Your task to perform on an android device: Do I have any events tomorrow? Image 0: 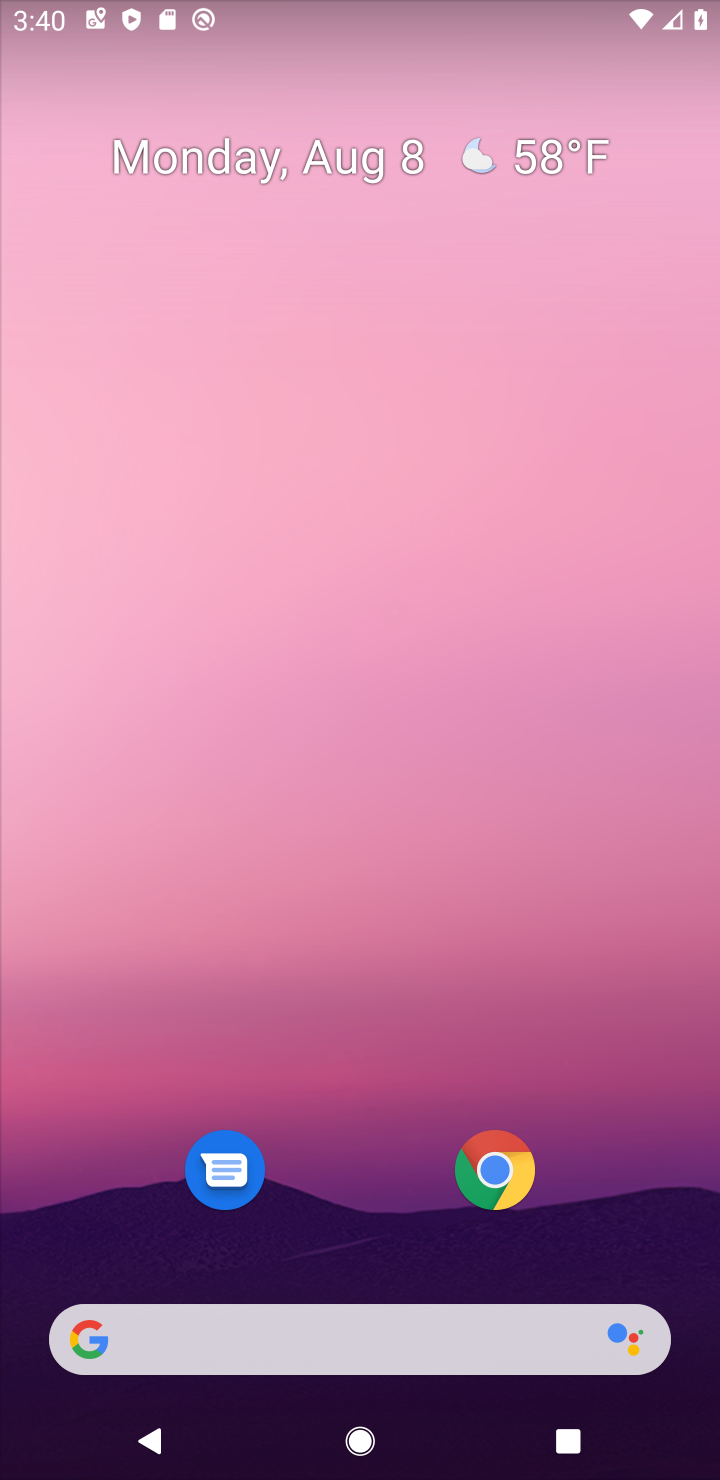
Step 0: drag from (363, 690) to (357, 418)
Your task to perform on an android device: Do I have any events tomorrow? Image 1: 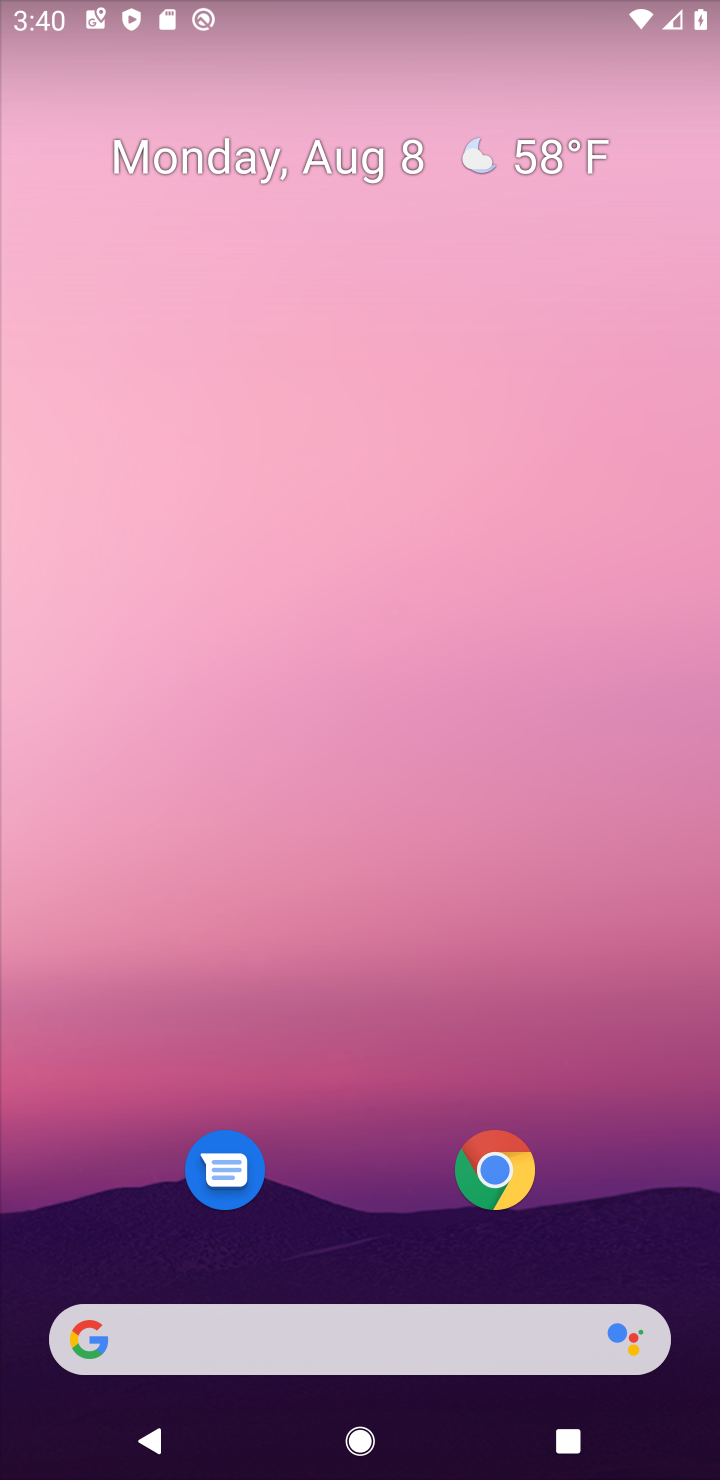
Step 1: drag from (356, 1162) to (366, 366)
Your task to perform on an android device: Do I have any events tomorrow? Image 2: 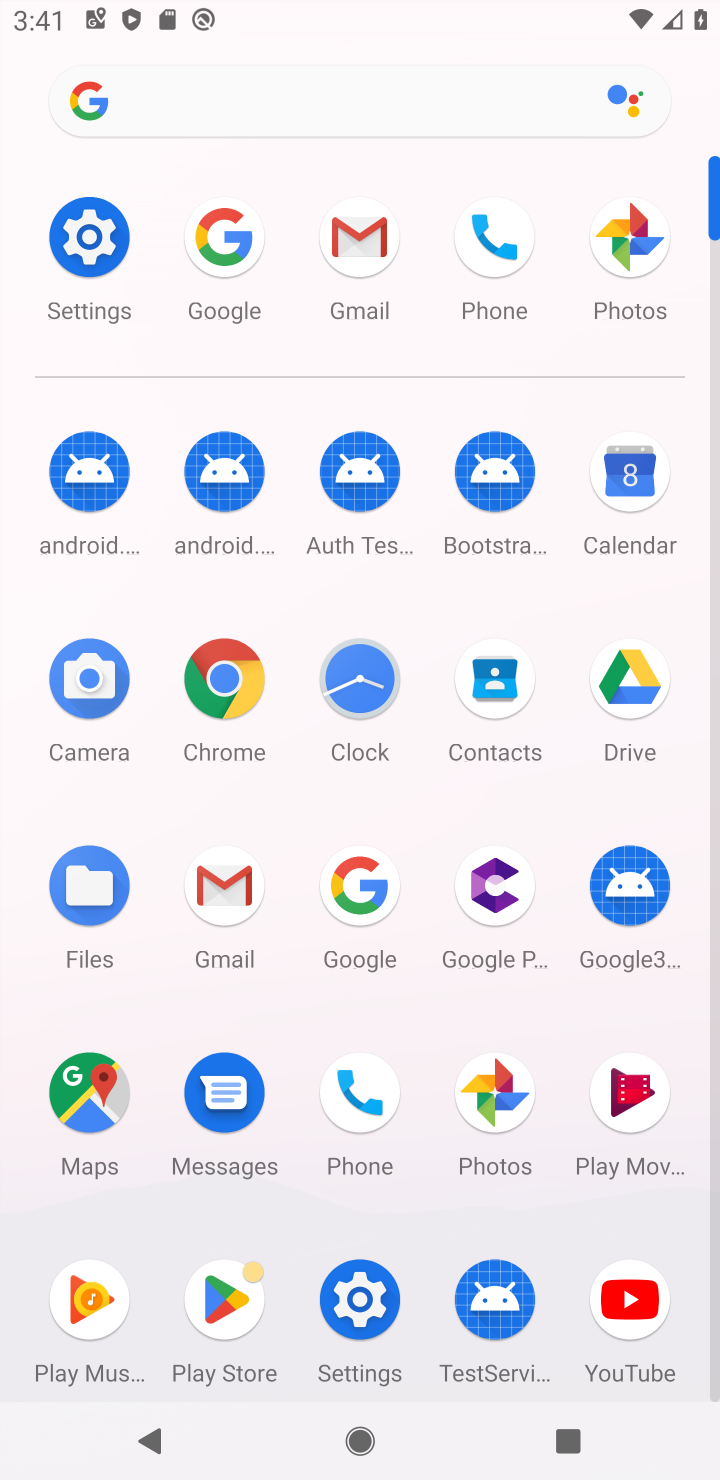
Step 2: click (622, 539)
Your task to perform on an android device: Do I have any events tomorrow? Image 3: 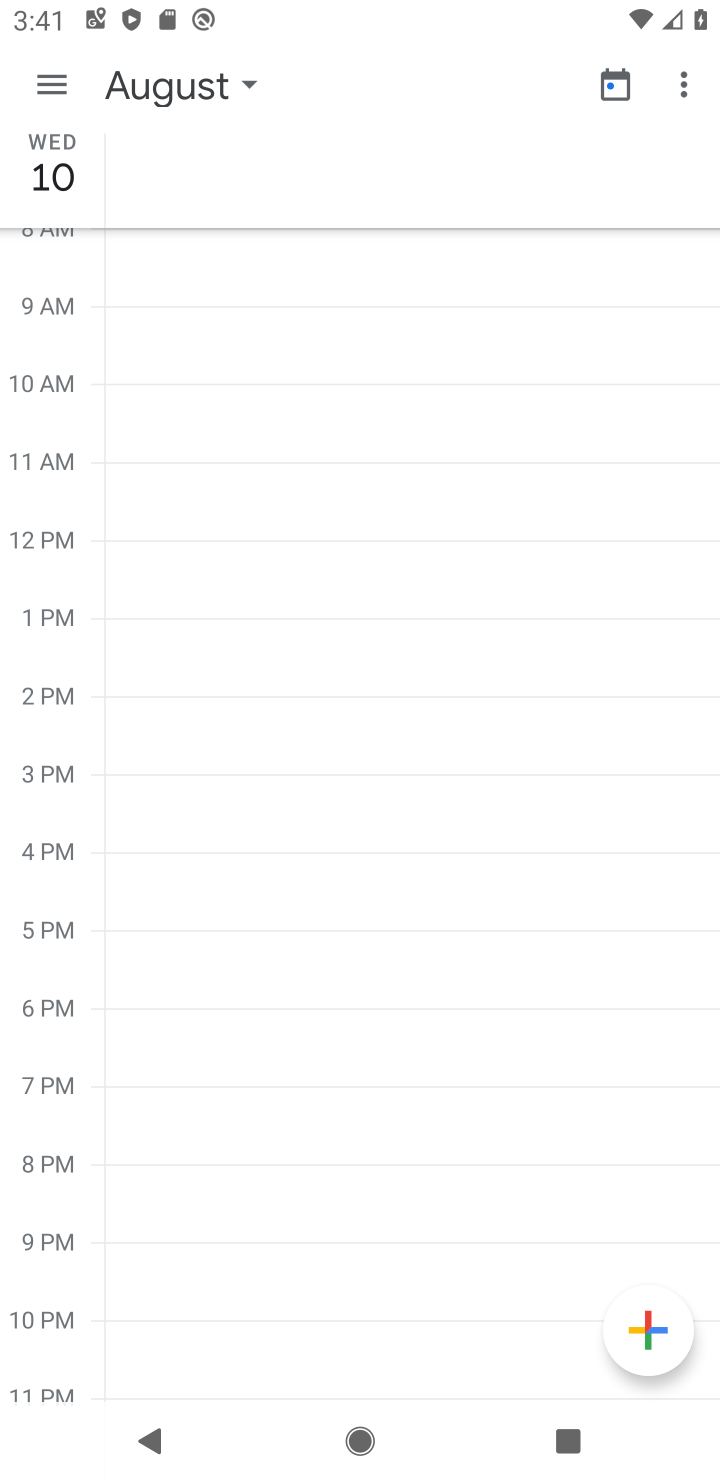
Step 3: click (221, 94)
Your task to perform on an android device: Do I have any events tomorrow? Image 4: 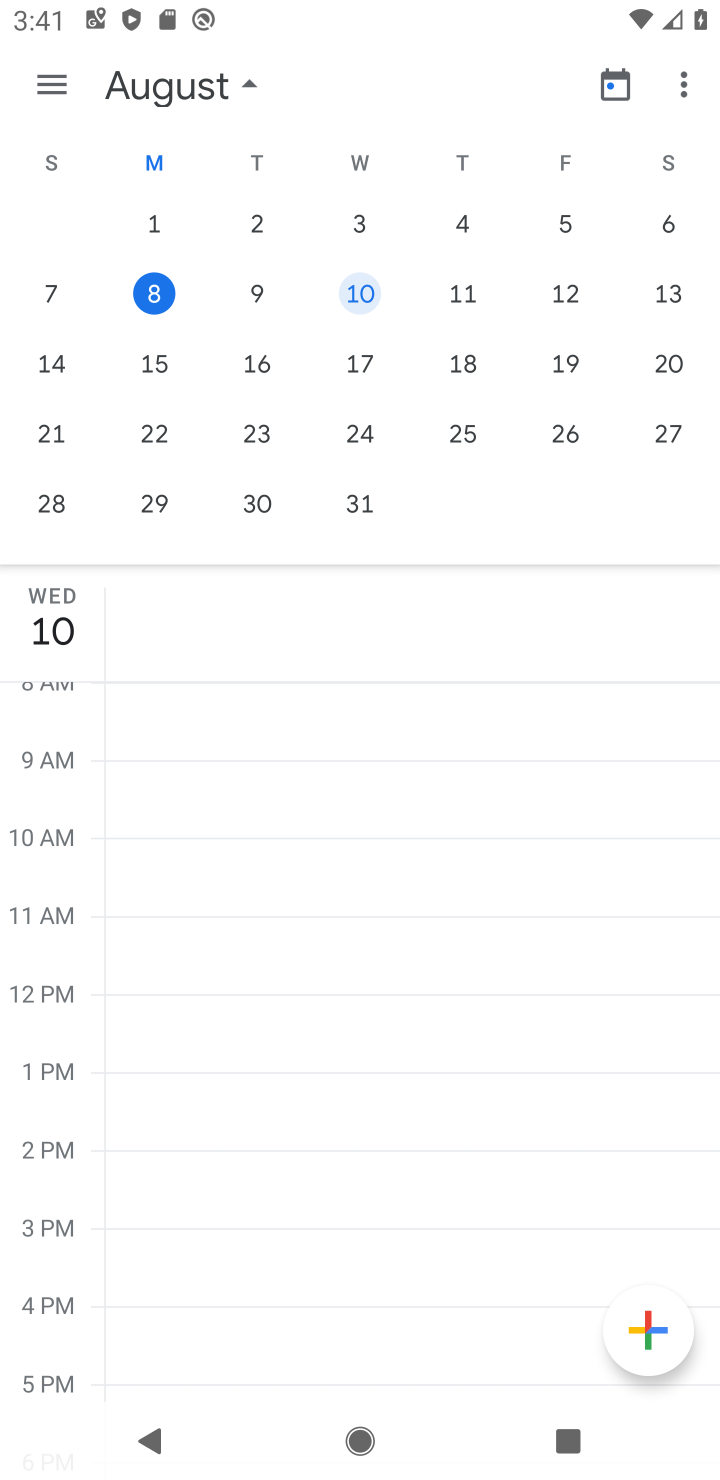
Step 4: click (265, 302)
Your task to perform on an android device: Do I have any events tomorrow? Image 5: 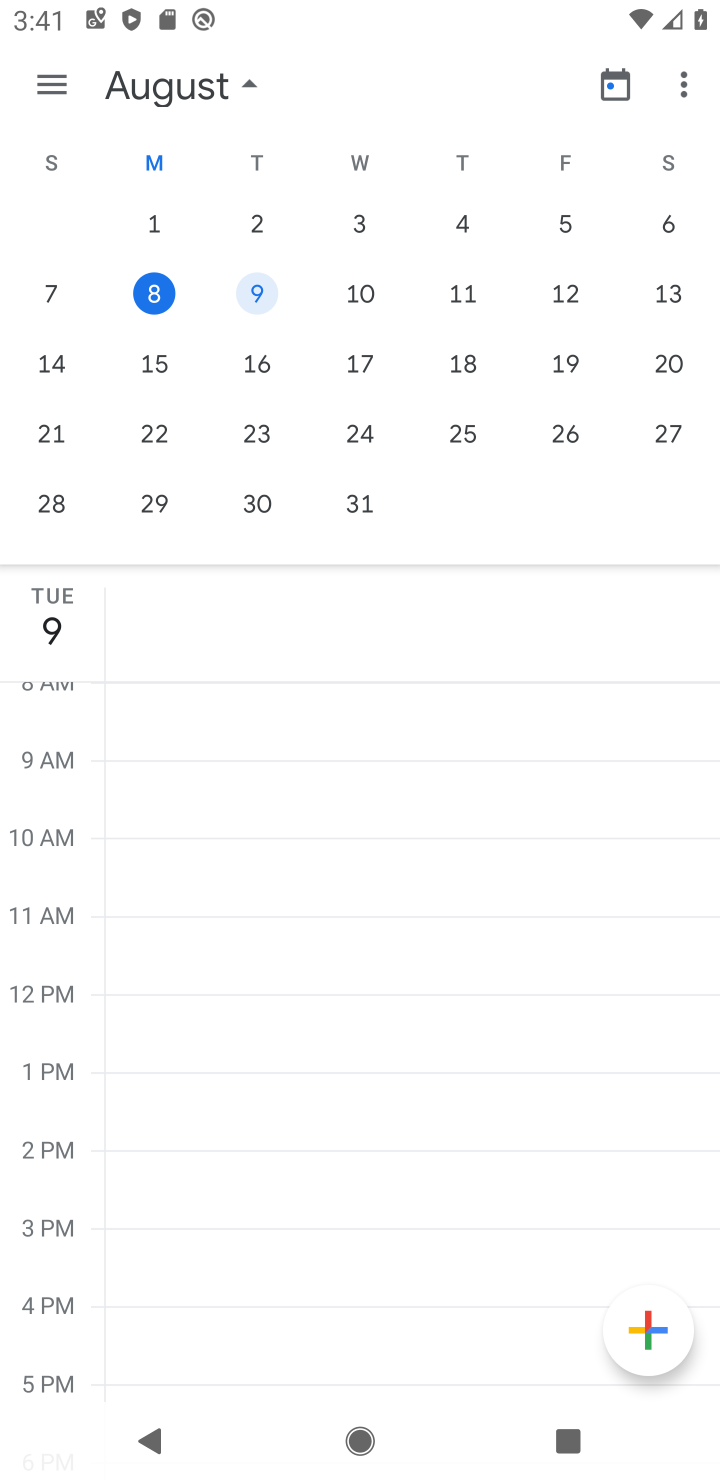
Step 5: task complete